Your task to perform on an android device: Open Youtube and go to "Your channel" Image 0: 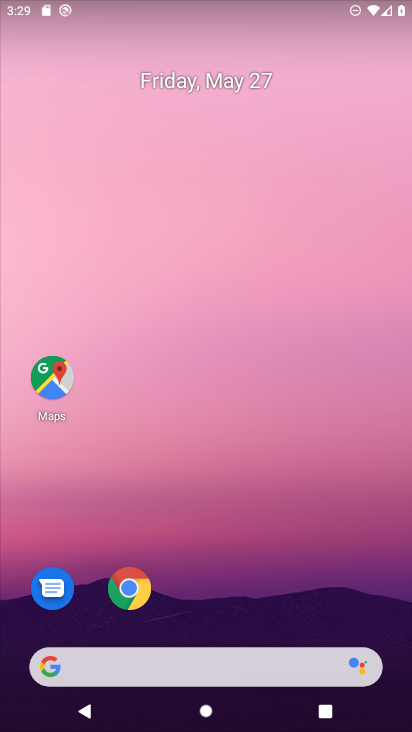
Step 0: drag from (274, 576) to (202, 8)
Your task to perform on an android device: Open Youtube and go to "Your channel" Image 1: 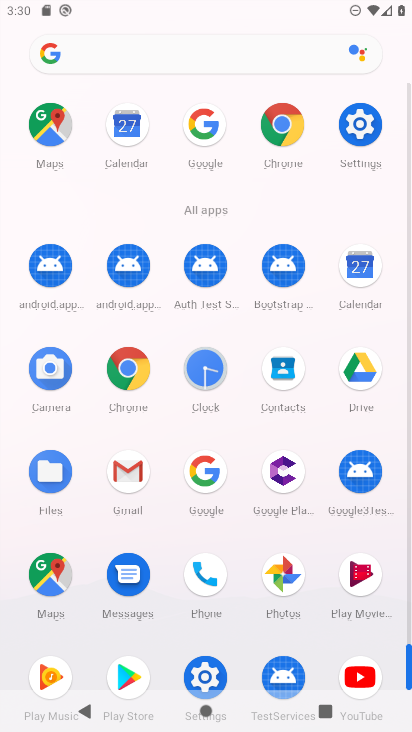
Step 1: drag from (247, 264) to (284, 25)
Your task to perform on an android device: Open Youtube and go to "Your channel" Image 2: 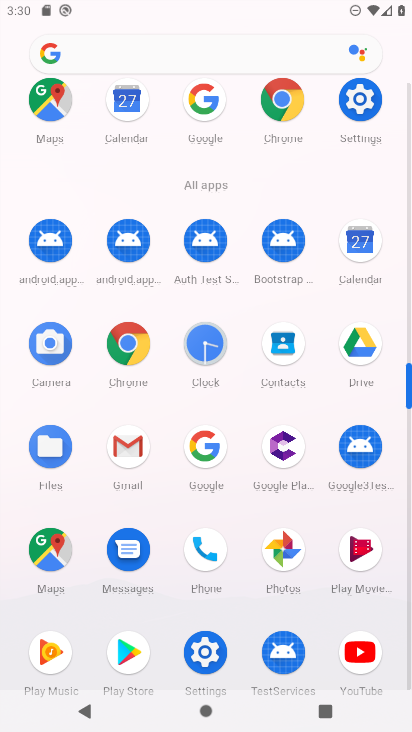
Step 2: click (363, 642)
Your task to perform on an android device: Open Youtube and go to "Your channel" Image 3: 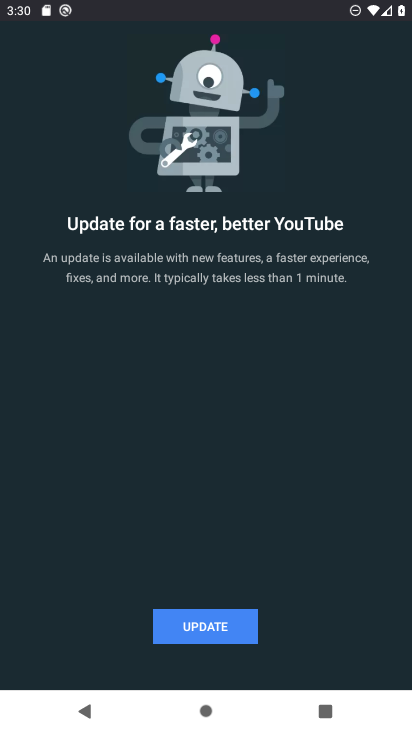
Step 3: click (153, 628)
Your task to perform on an android device: Open Youtube and go to "Your channel" Image 4: 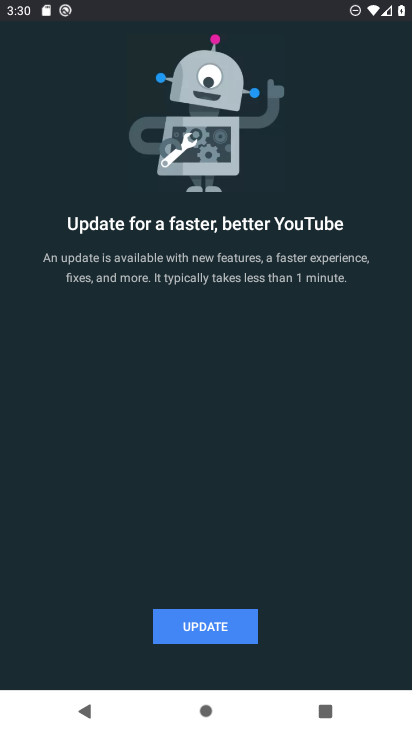
Step 4: click (165, 630)
Your task to perform on an android device: Open Youtube and go to "Your channel" Image 5: 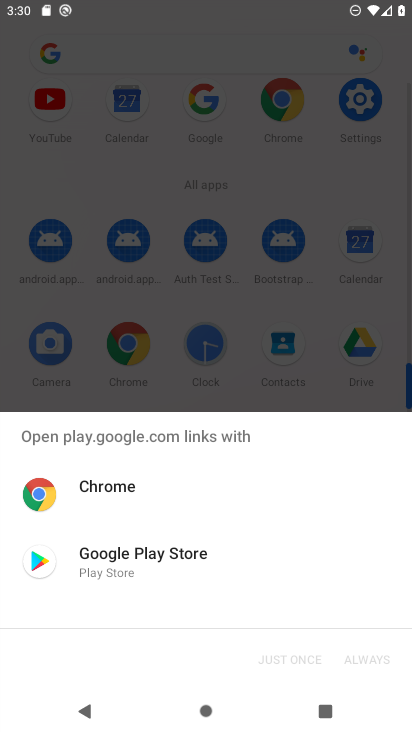
Step 5: click (204, 559)
Your task to perform on an android device: Open Youtube and go to "Your channel" Image 6: 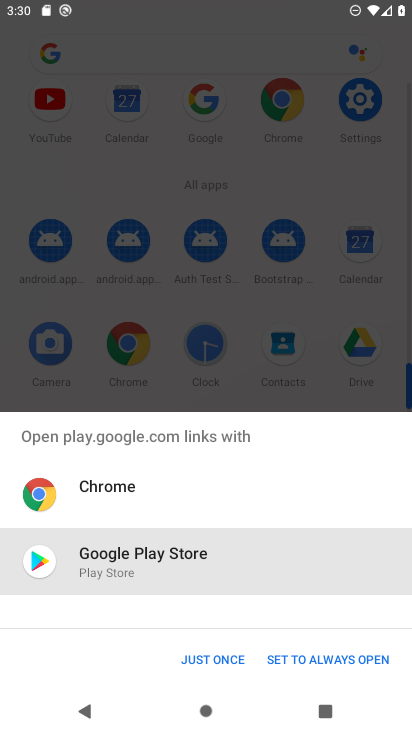
Step 6: click (187, 659)
Your task to perform on an android device: Open Youtube and go to "Your channel" Image 7: 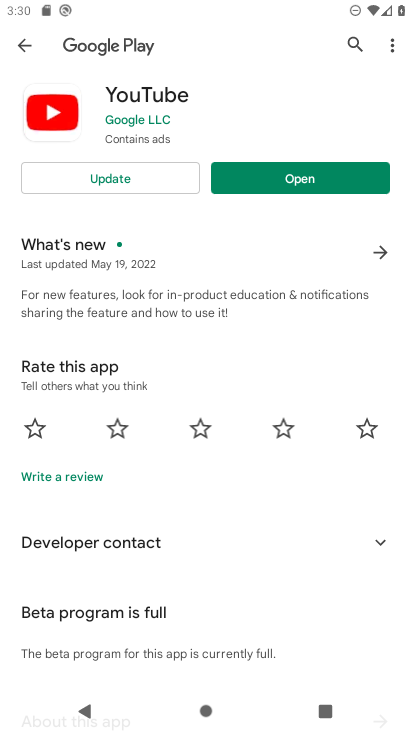
Step 7: click (151, 174)
Your task to perform on an android device: Open Youtube and go to "Your channel" Image 8: 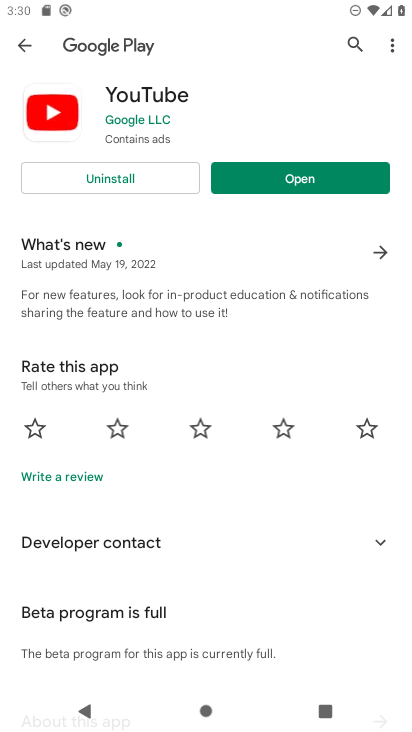
Step 8: click (255, 182)
Your task to perform on an android device: Open Youtube and go to "Your channel" Image 9: 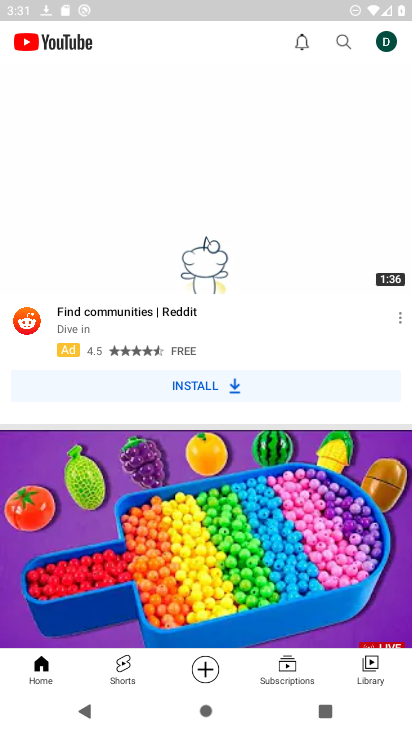
Step 9: click (385, 54)
Your task to perform on an android device: Open Youtube and go to "Your channel" Image 10: 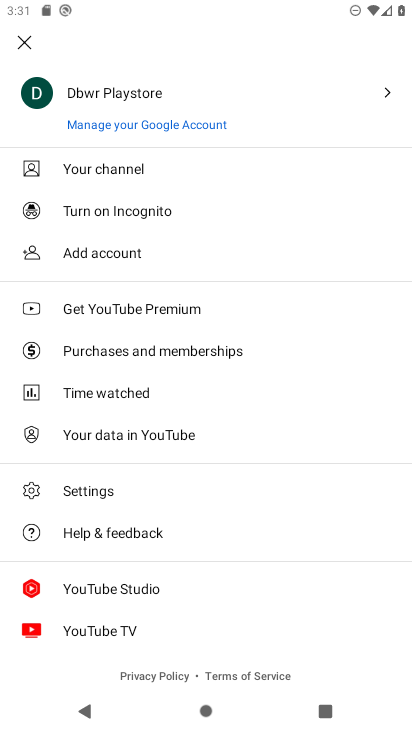
Step 10: click (129, 166)
Your task to perform on an android device: Open Youtube and go to "Your channel" Image 11: 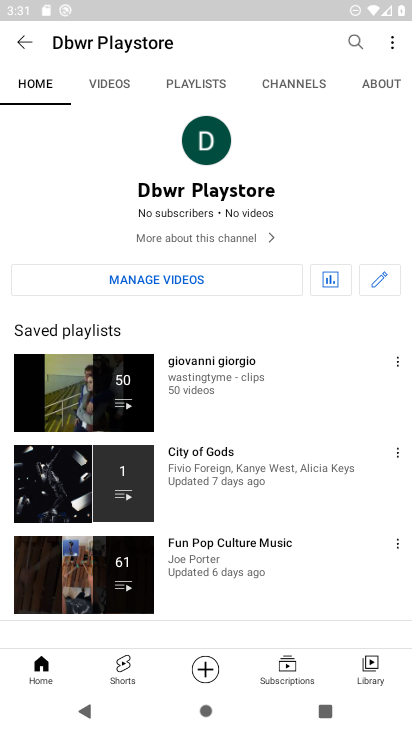
Step 11: task complete